Your task to perform on an android device: Search for Italian restaurants on Maps Image 0: 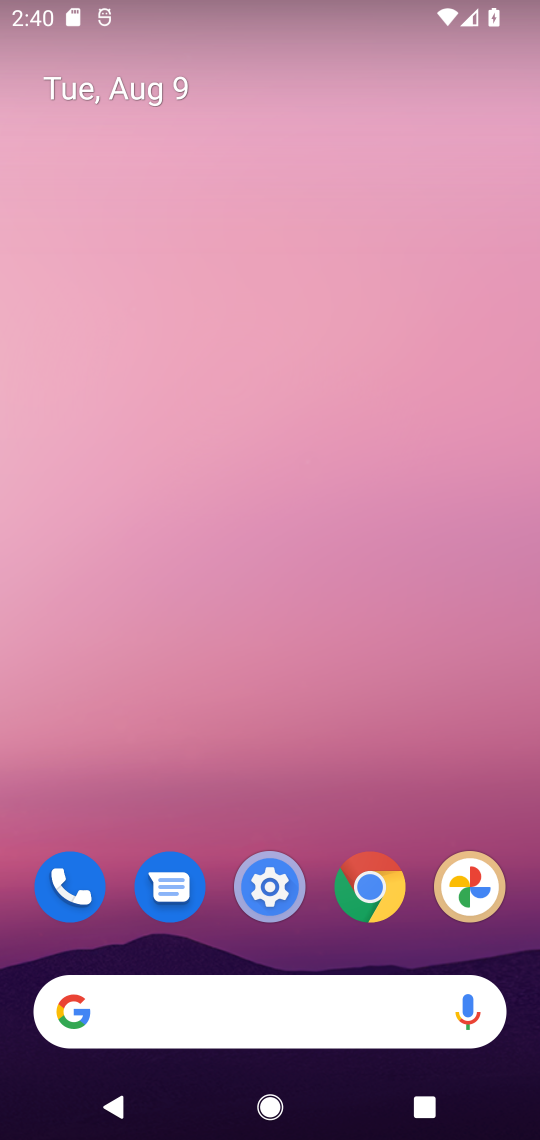
Step 0: drag from (235, 947) to (396, 278)
Your task to perform on an android device: Search for Italian restaurants on Maps Image 1: 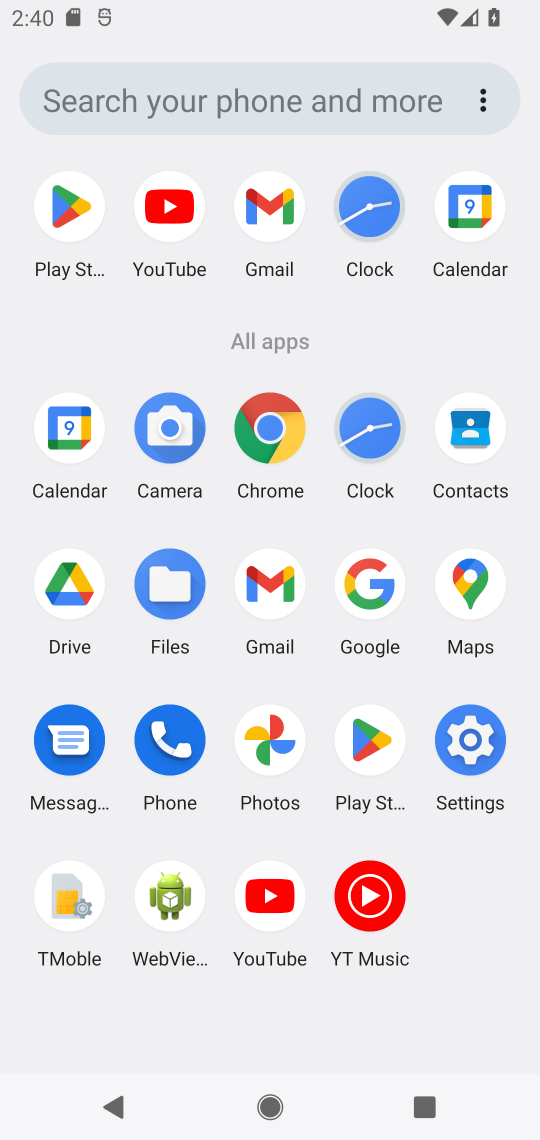
Step 1: click (474, 594)
Your task to perform on an android device: Search for Italian restaurants on Maps Image 2: 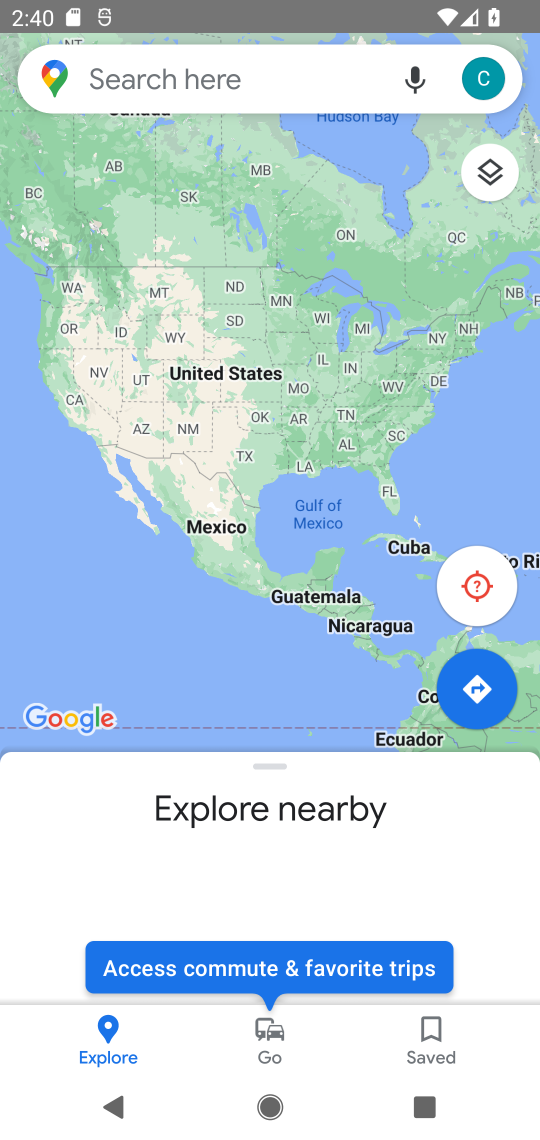
Step 2: click (123, 83)
Your task to perform on an android device: Search for Italian restaurants on Maps Image 3: 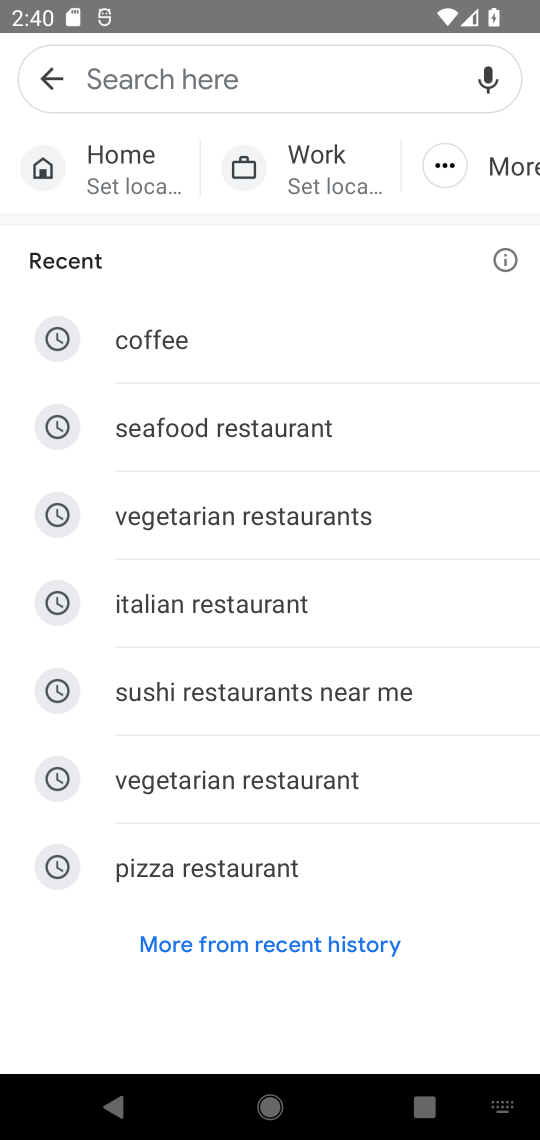
Step 3: type "Italian restaurants"
Your task to perform on an android device: Search for Italian restaurants on Maps Image 4: 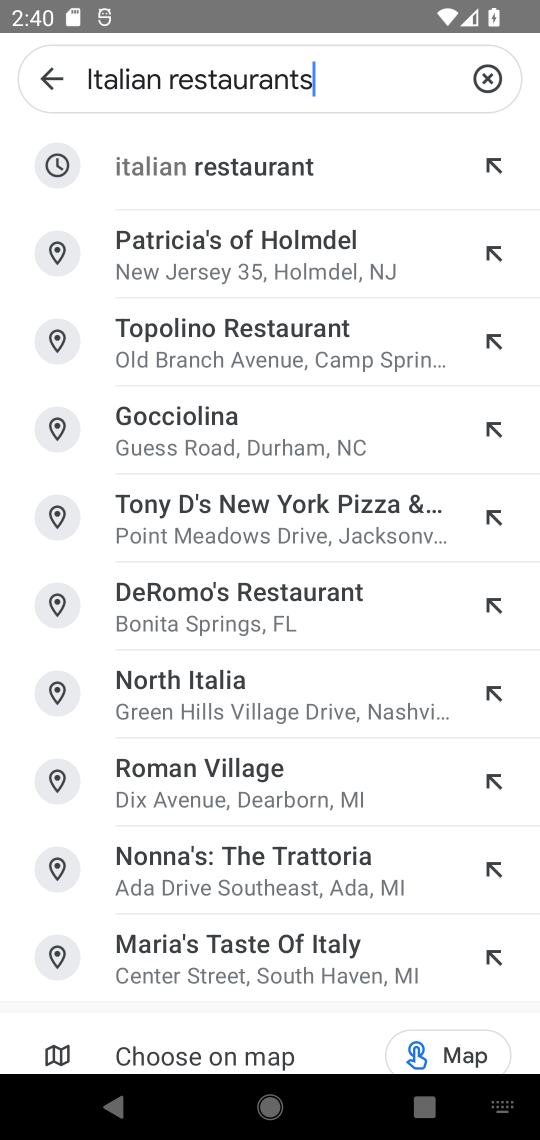
Step 4: click (254, 161)
Your task to perform on an android device: Search for Italian restaurants on Maps Image 5: 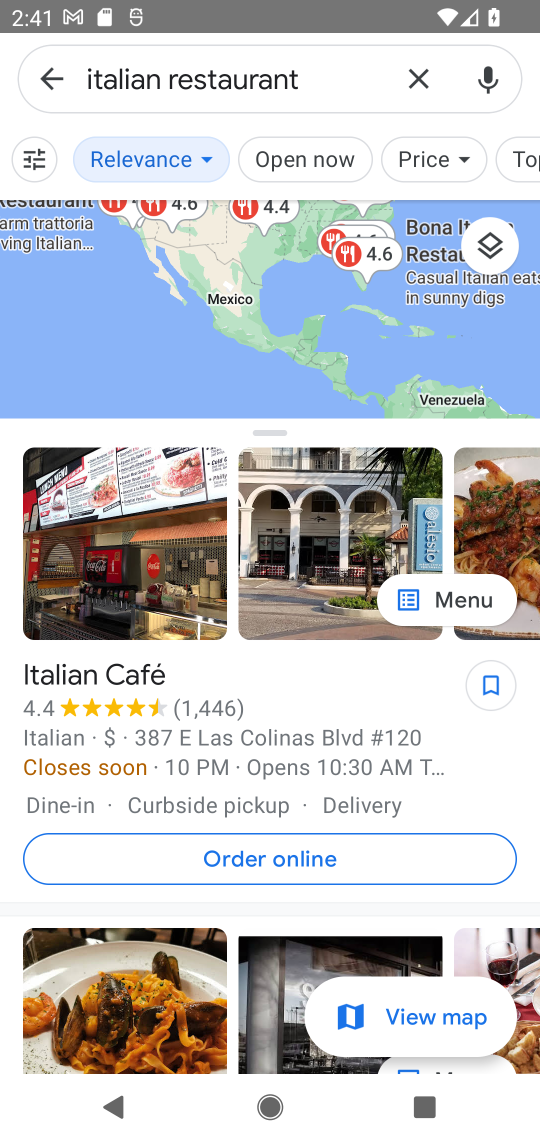
Step 5: task complete